Your task to perform on an android device: change alarm snooze length Image 0: 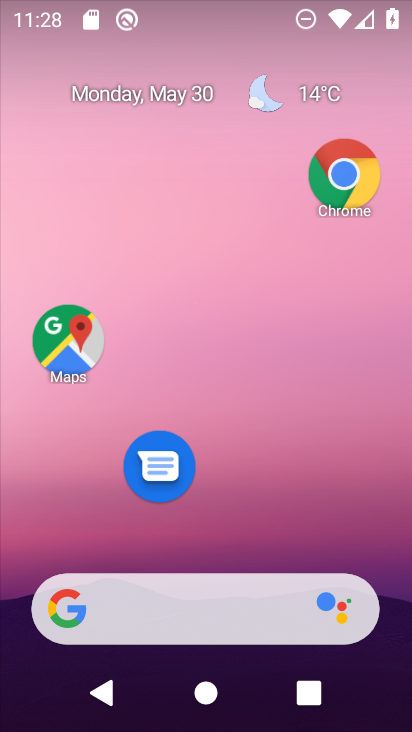
Step 0: drag from (287, 459) to (287, 108)
Your task to perform on an android device: change alarm snooze length Image 1: 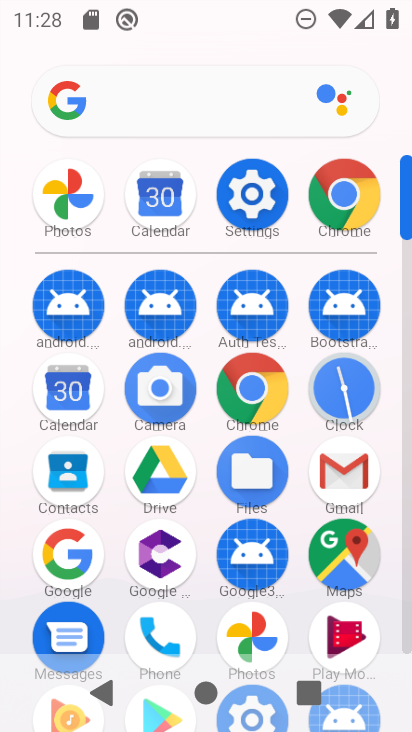
Step 1: click (333, 385)
Your task to perform on an android device: change alarm snooze length Image 2: 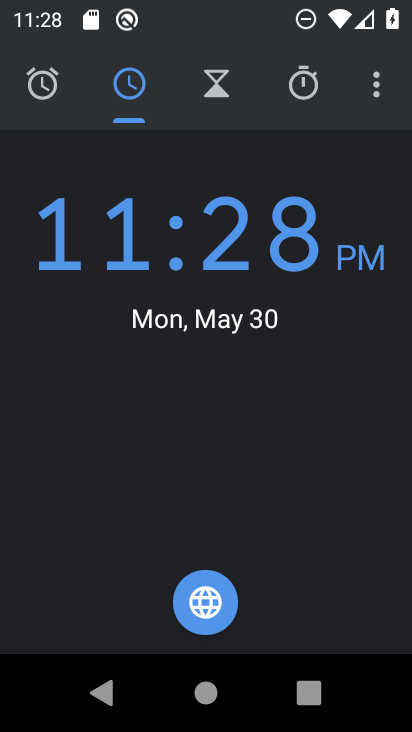
Step 2: click (35, 96)
Your task to perform on an android device: change alarm snooze length Image 3: 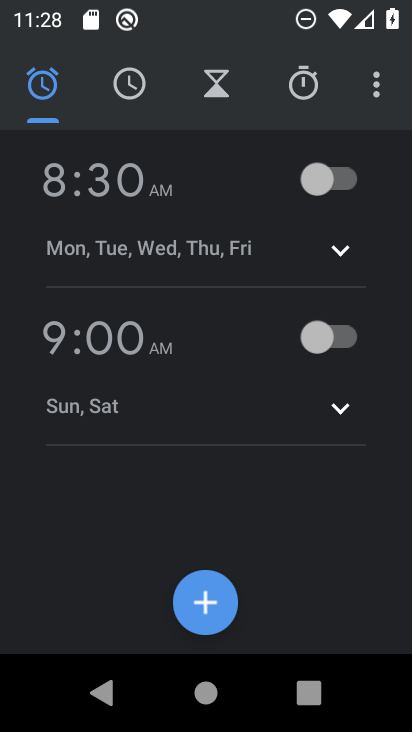
Step 3: click (81, 205)
Your task to perform on an android device: change alarm snooze length Image 4: 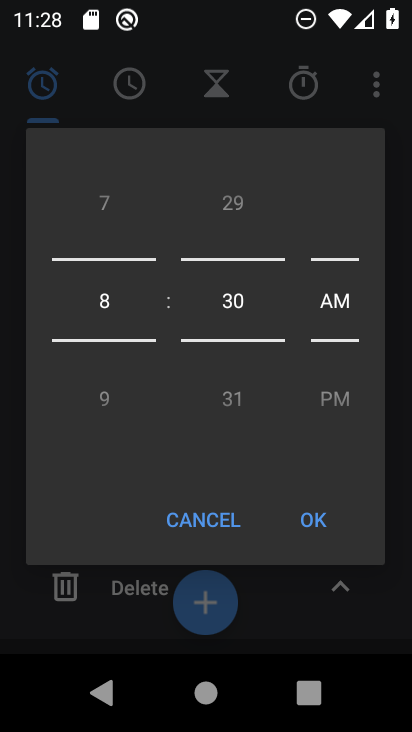
Step 4: click (331, 510)
Your task to perform on an android device: change alarm snooze length Image 5: 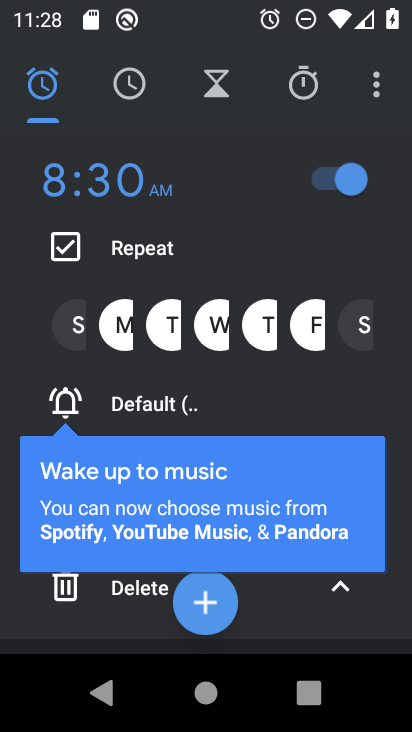
Step 5: click (367, 80)
Your task to perform on an android device: change alarm snooze length Image 6: 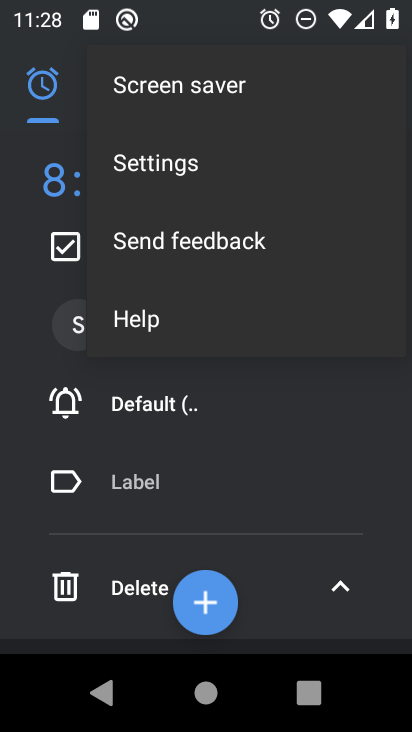
Step 6: click (224, 137)
Your task to perform on an android device: change alarm snooze length Image 7: 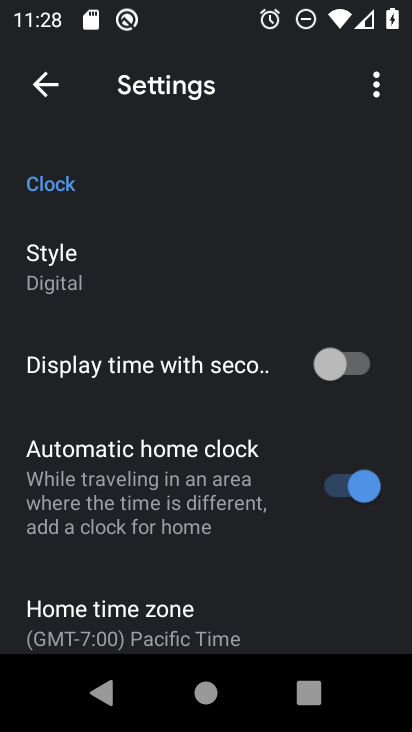
Step 7: drag from (149, 511) to (185, 319)
Your task to perform on an android device: change alarm snooze length Image 8: 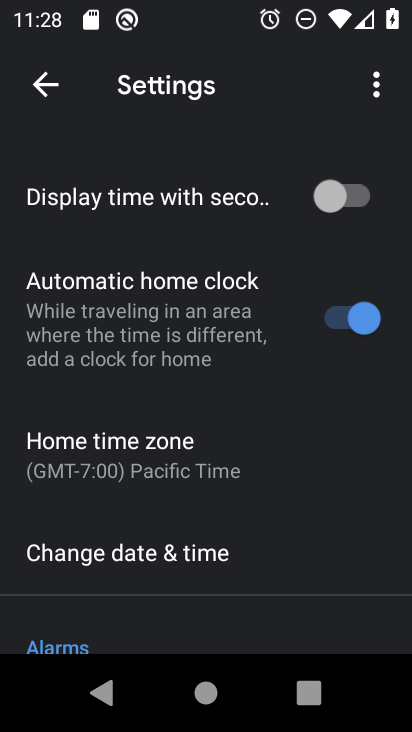
Step 8: drag from (180, 564) to (199, 173)
Your task to perform on an android device: change alarm snooze length Image 9: 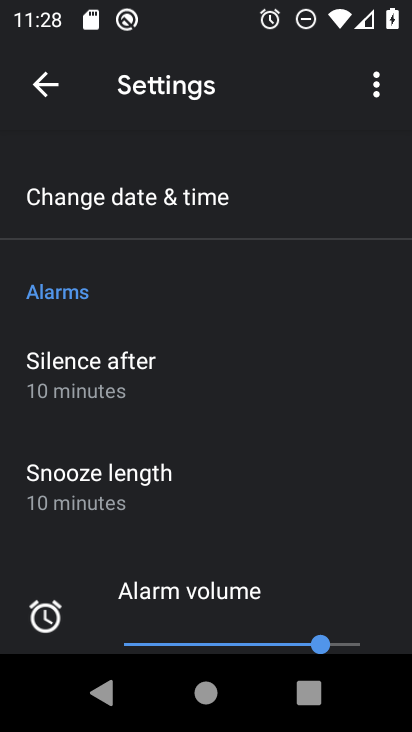
Step 9: click (116, 476)
Your task to perform on an android device: change alarm snooze length Image 10: 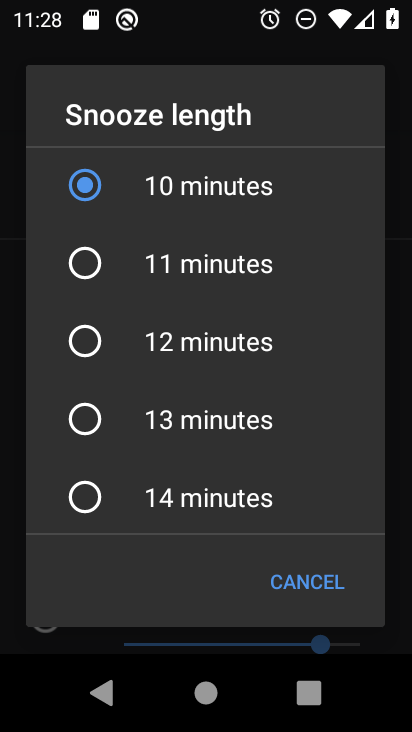
Step 10: click (88, 411)
Your task to perform on an android device: change alarm snooze length Image 11: 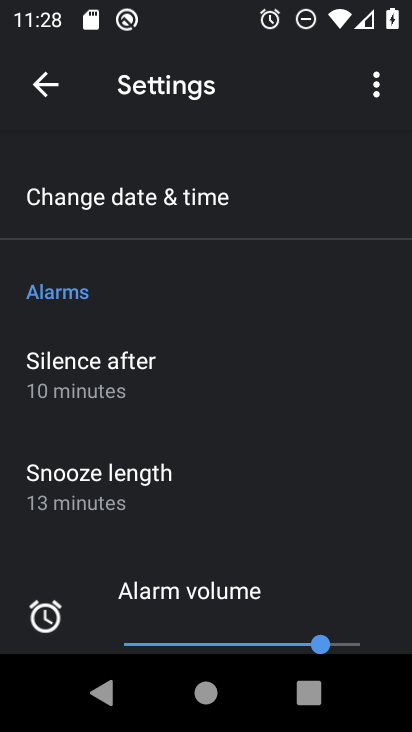
Step 11: click (170, 370)
Your task to perform on an android device: change alarm snooze length Image 12: 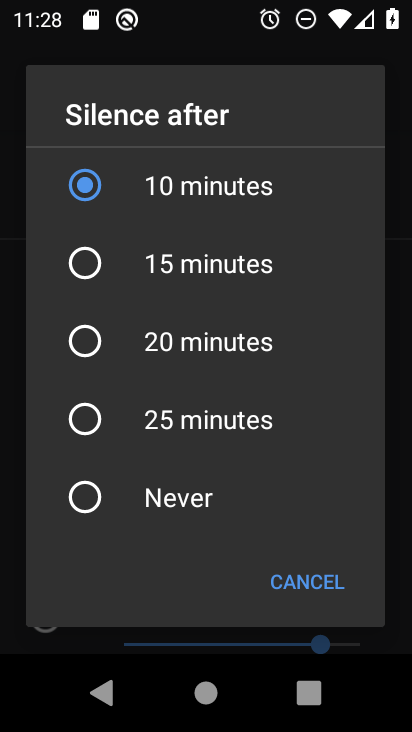
Step 12: click (286, 586)
Your task to perform on an android device: change alarm snooze length Image 13: 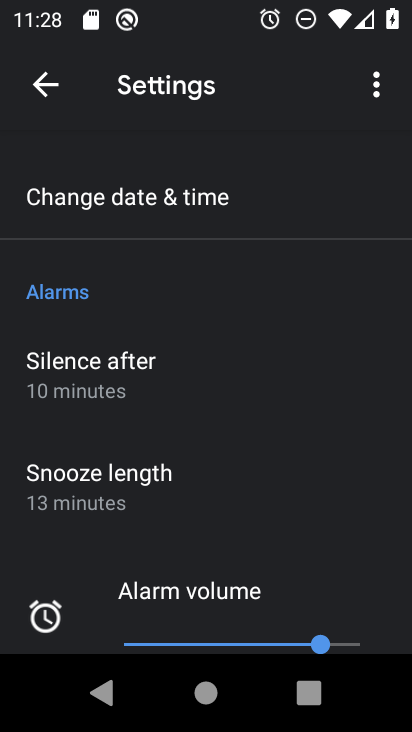
Step 13: task complete